Your task to perform on an android device: Open internet settings Image 0: 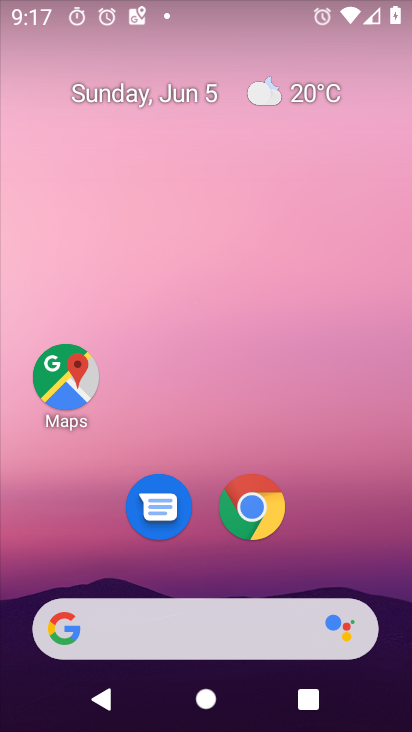
Step 0: drag from (355, 567) to (232, 19)
Your task to perform on an android device: Open internet settings Image 1: 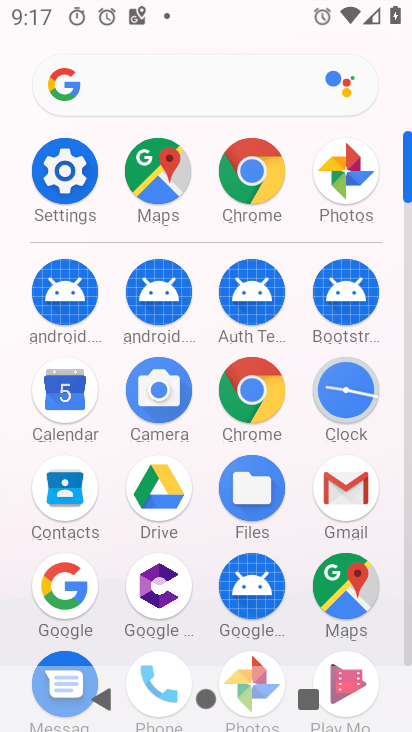
Step 1: drag from (8, 584) to (7, 334)
Your task to perform on an android device: Open internet settings Image 2: 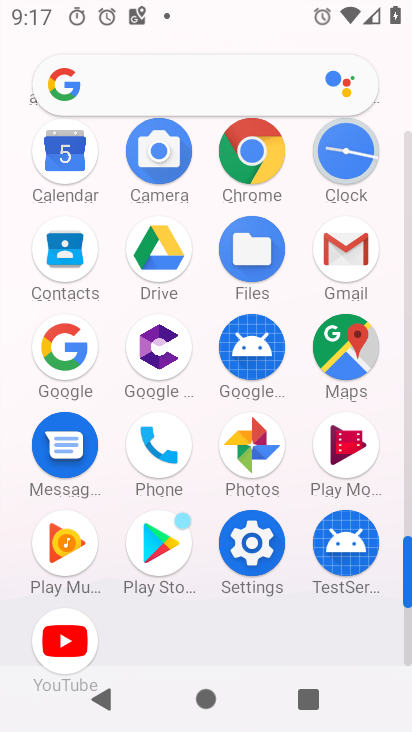
Step 2: click (252, 541)
Your task to perform on an android device: Open internet settings Image 3: 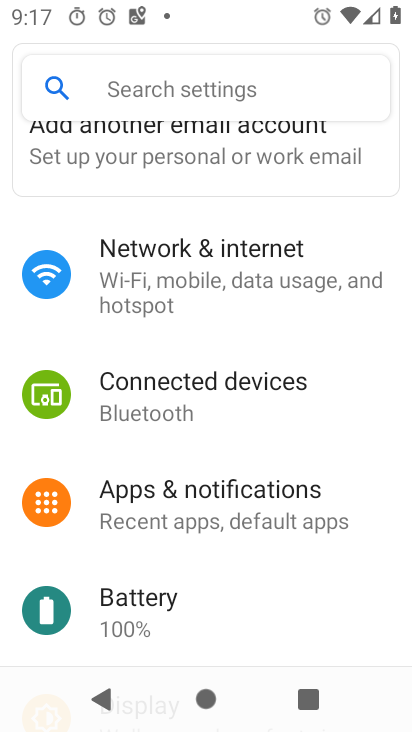
Step 3: click (199, 272)
Your task to perform on an android device: Open internet settings Image 4: 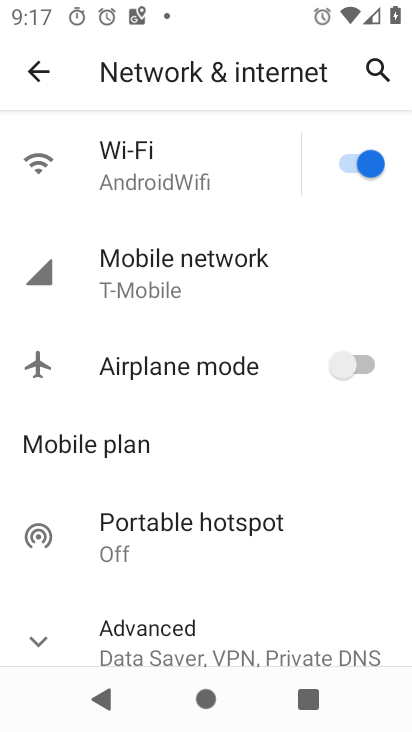
Step 4: click (39, 637)
Your task to perform on an android device: Open internet settings Image 5: 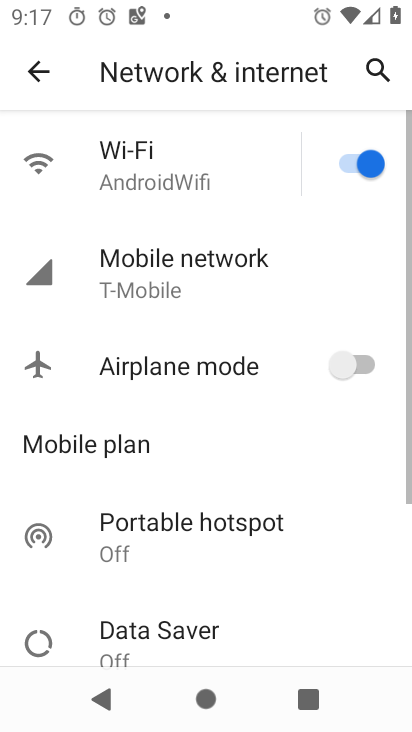
Step 5: task complete